Your task to perform on an android device: uninstall "Facebook Lite" Image 0: 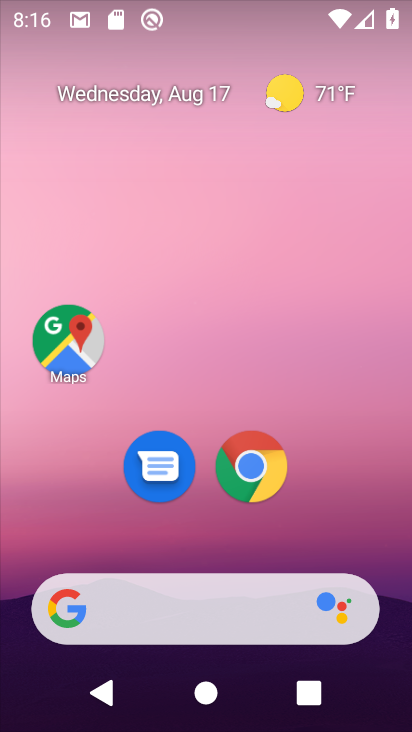
Step 0: drag from (193, 538) to (253, 6)
Your task to perform on an android device: uninstall "Facebook Lite" Image 1: 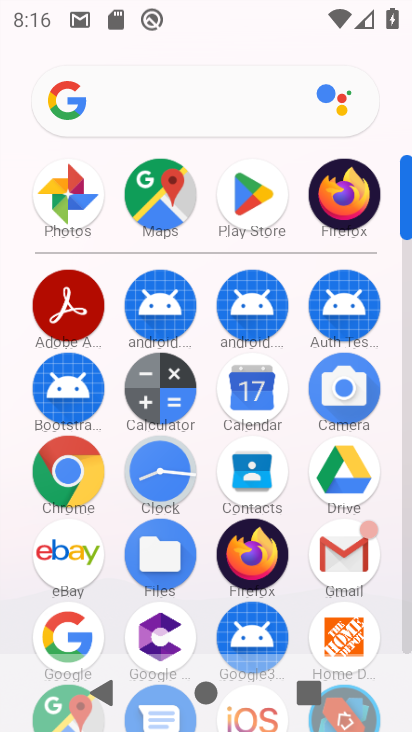
Step 1: click (252, 203)
Your task to perform on an android device: uninstall "Facebook Lite" Image 2: 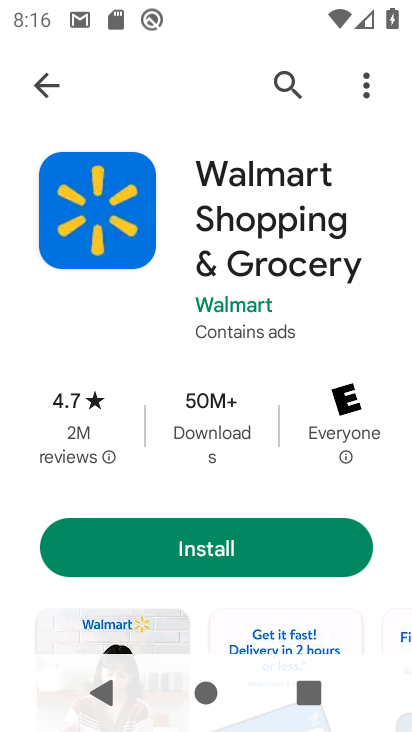
Step 2: click (44, 85)
Your task to perform on an android device: uninstall "Facebook Lite" Image 3: 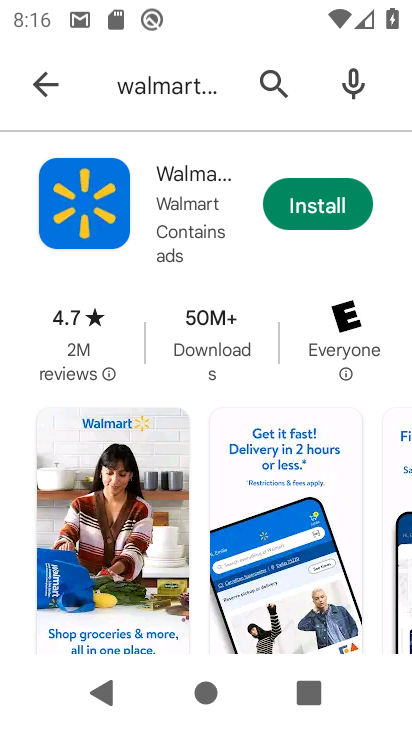
Step 3: click (194, 87)
Your task to perform on an android device: uninstall "Facebook Lite" Image 4: 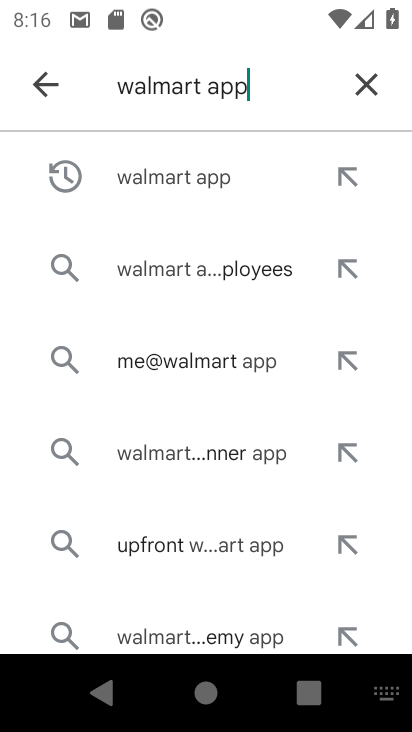
Step 4: click (367, 79)
Your task to perform on an android device: uninstall "Facebook Lite" Image 5: 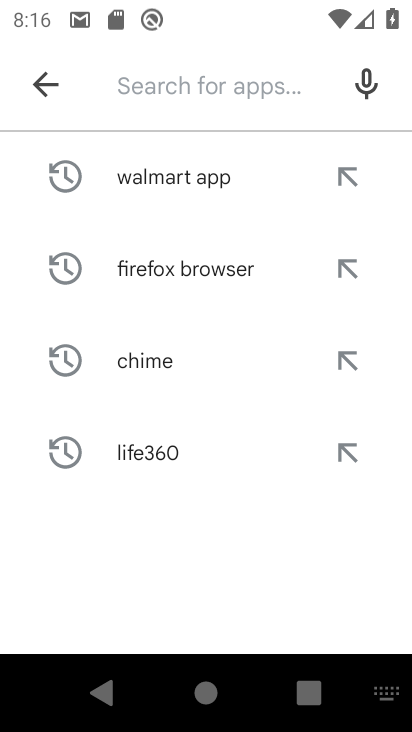
Step 5: type "facebook lite"
Your task to perform on an android device: uninstall "Facebook Lite" Image 6: 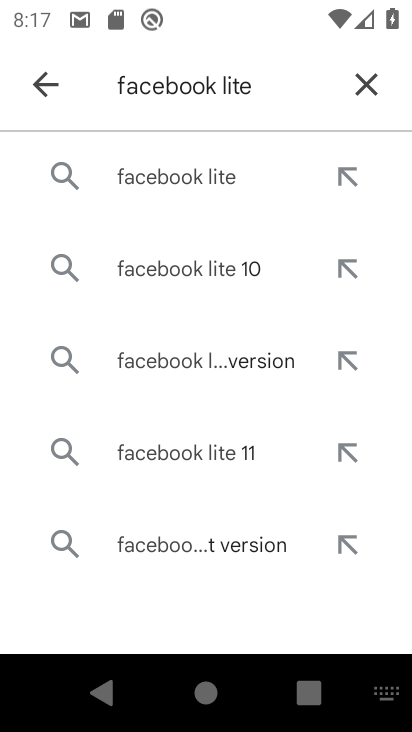
Step 6: click (174, 174)
Your task to perform on an android device: uninstall "Facebook Lite" Image 7: 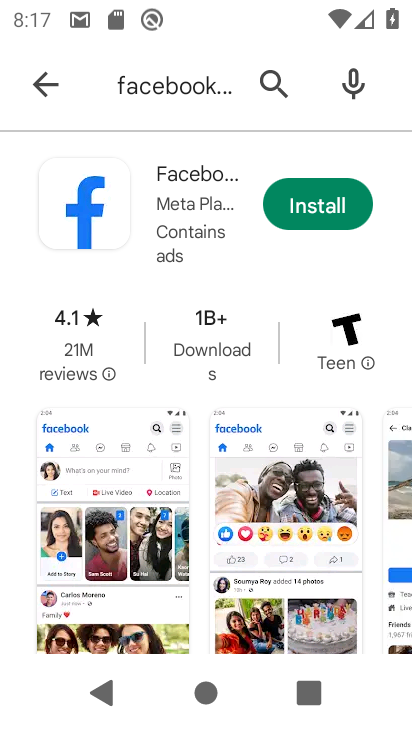
Step 7: task complete